Your task to perform on an android device: Go to accessibility settings Image 0: 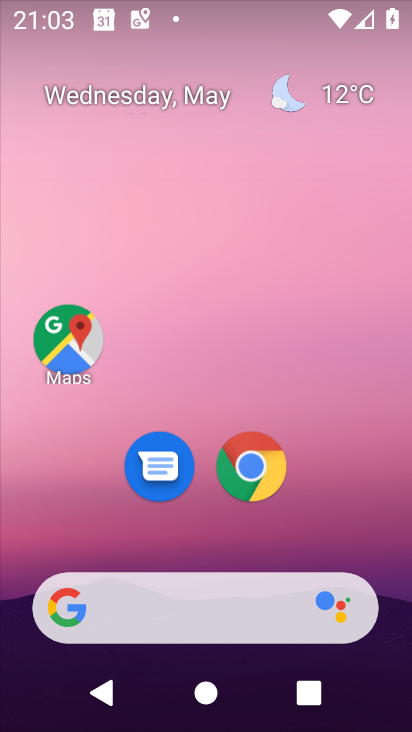
Step 0: drag from (193, 528) to (213, 70)
Your task to perform on an android device: Go to accessibility settings Image 1: 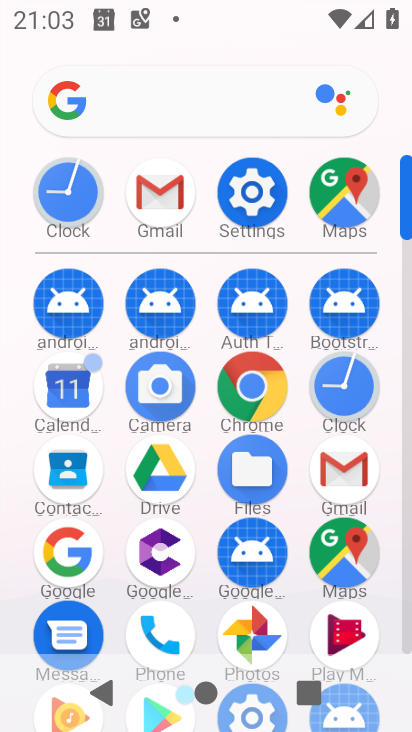
Step 1: click (250, 186)
Your task to perform on an android device: Go to accessibility settings Image 2: 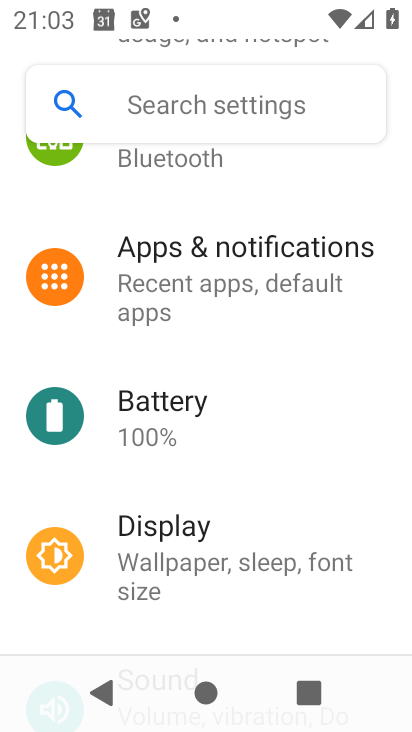
Step 2: drag from (172, 517) to (160, 105)
Your task to perform on an android device: Go to accessibility settings Image 3: 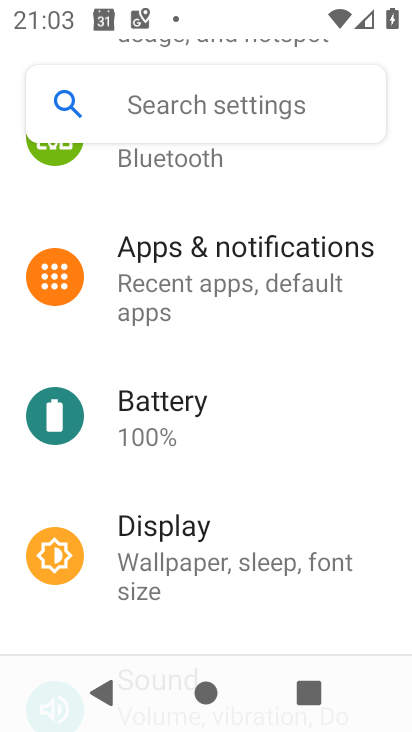
Step 3: drag from (221, 535) to (234, 94)
Your task to perform on an android device: Go to accessibility settings Image 4: 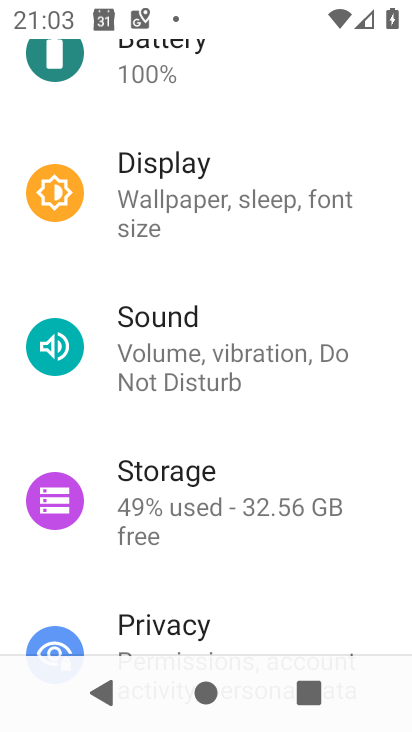
Step 4: drag from (208, 572) to (231, 62)
Your task to perform on an android device: Go to accessibility settings Image 5: 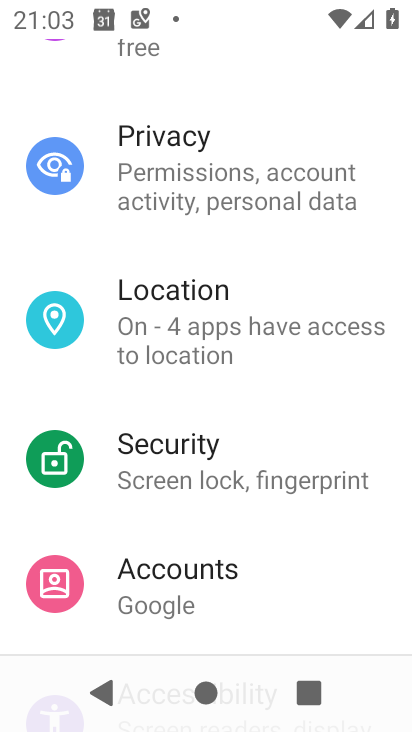
Step 5: drag from (203, 581) to (216, 144)
Your task to perform on an android device: Go to accessibility settings Image 6: 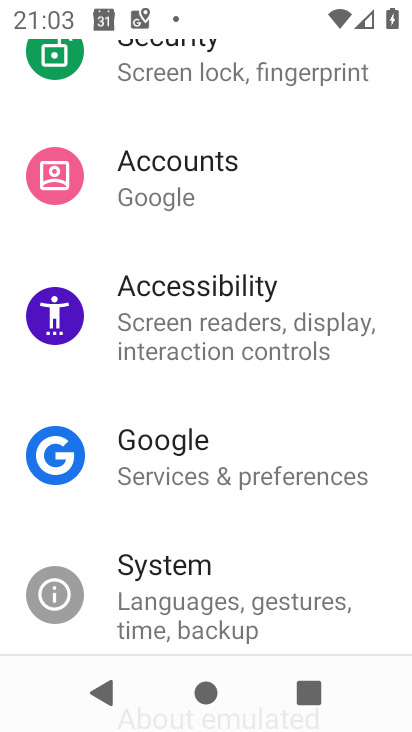
Step 6: click (205, 300)
Your task to perform on an android device: Go to accessibility settings Image 7: 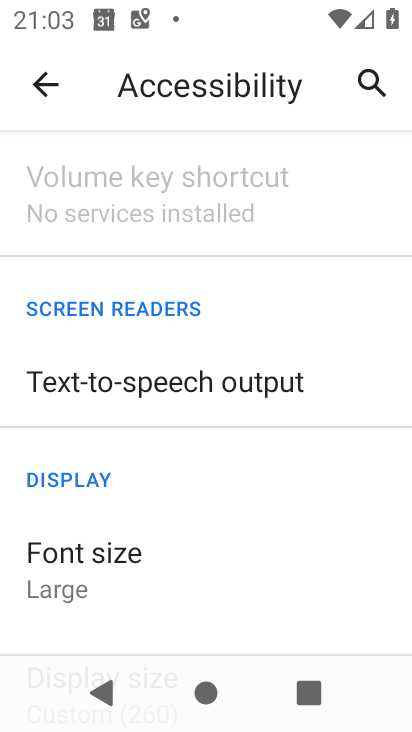
Step 7: task complete